Your task to perform on an android device: empty trash in the gmail app Image 0: 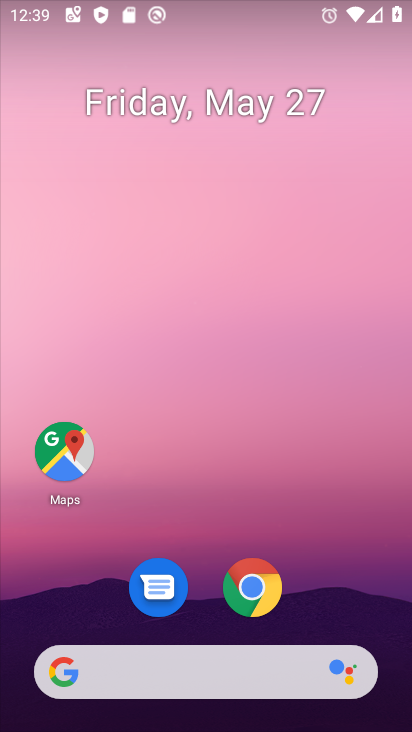
Step 0: drag from (290, 697) to (301, 65)
Your task to perform on an android device: empty trash in the gmail app Image 1: 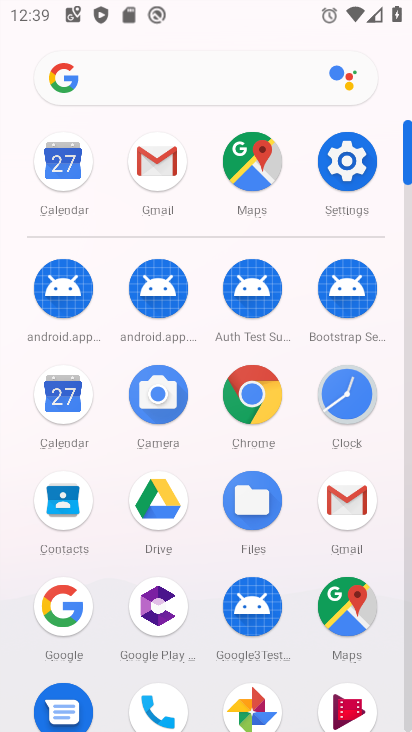
Step 1: click (170, 175)
Your task to perform on an android device: empty trash in the gmail app Image 2: 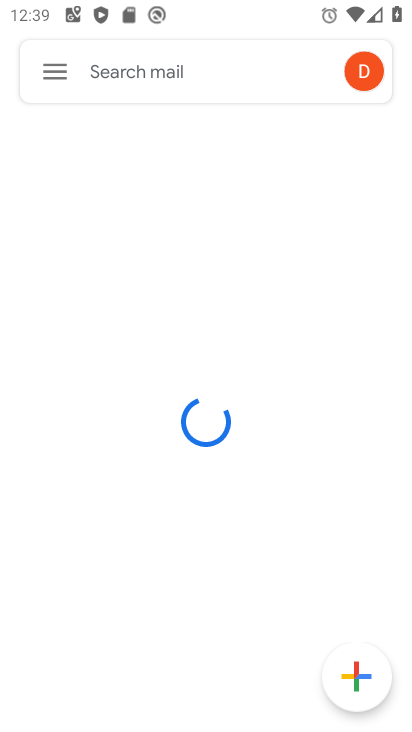
Step 2: click (64, 82)
Your task to perform on an android device: empty trash in the gmail app Image 3: 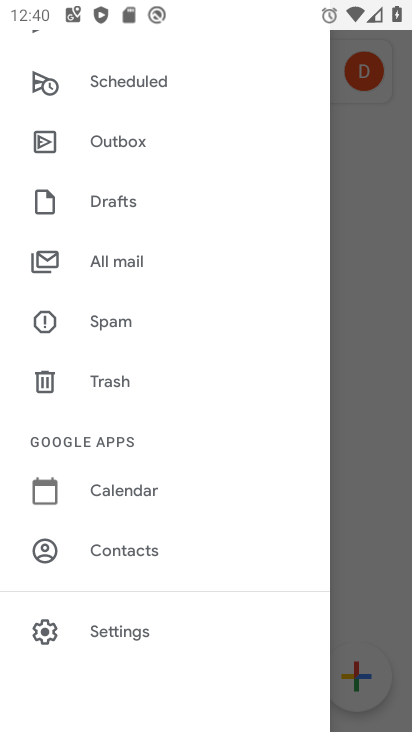
Step 3: click (120, 388)
Your task to perform on an android device: empty trash in the gmail app Image 4: 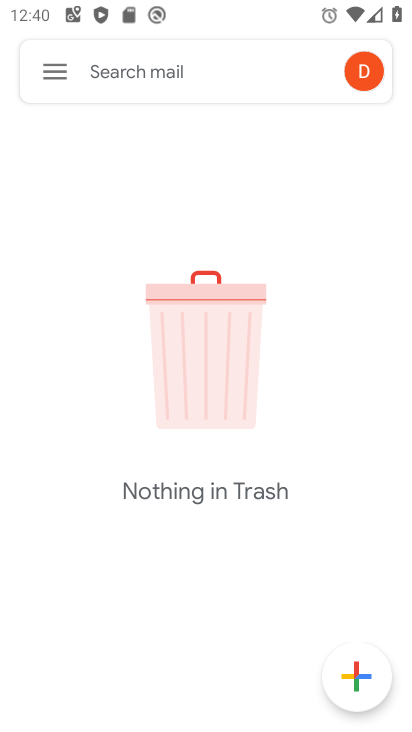
Step 4: task complete